Your task to perform on an android device: refresh tabs in the chrome app Image 0: 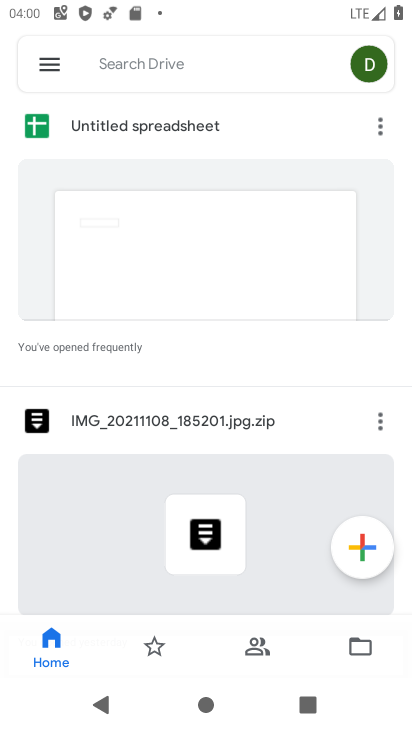
Step 0: press home button
Your task to perform on an android device: refresh tabs in the chrome app Image 1: 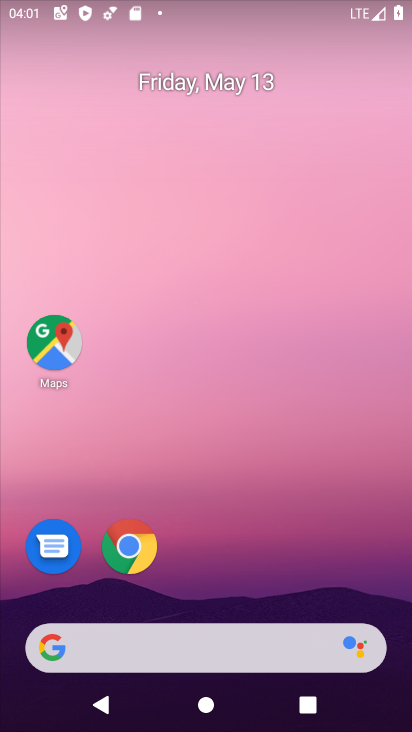
Step 1: click (137, 546)
Your task to perform on an android device: refresh tabs in the chrome app Image 2: 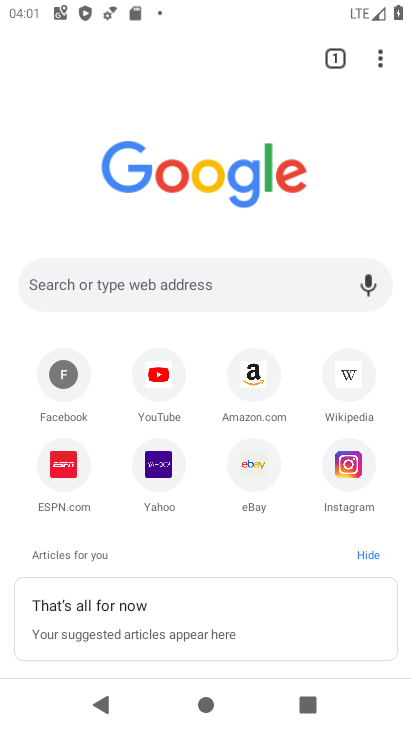
Step 2: click (137, 546)
Your task to perform on an android device: refresh tabs in the chrome app Image 3: 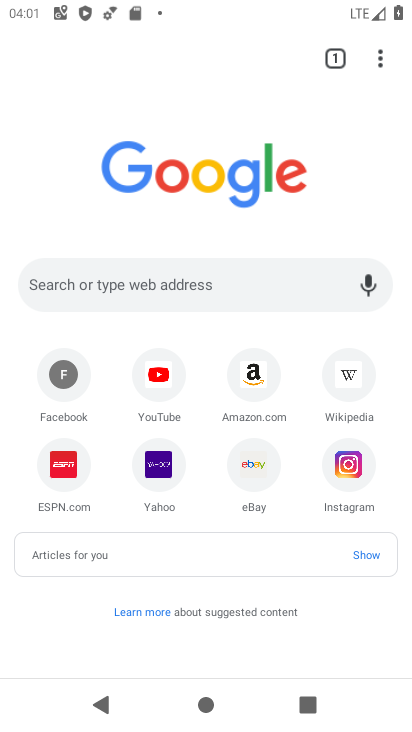
Step 3: click (390, 55)
Your task to perform on an android device: refresh tabs in the chrome app Image 4: 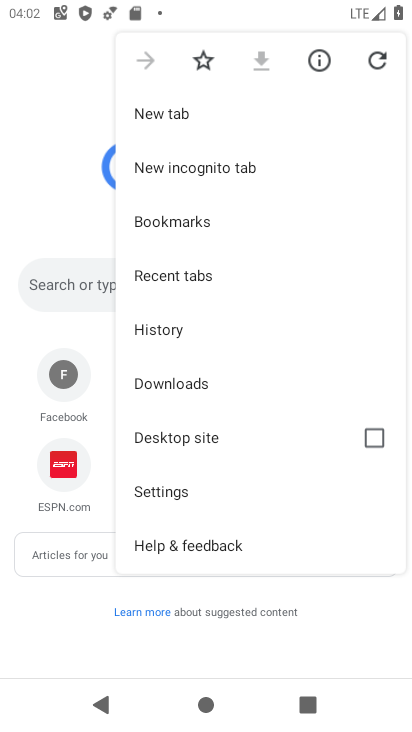
Step 4: click (395, 69)
Your task to perform on an android device: refresh tabs in the chrome app Image 5: 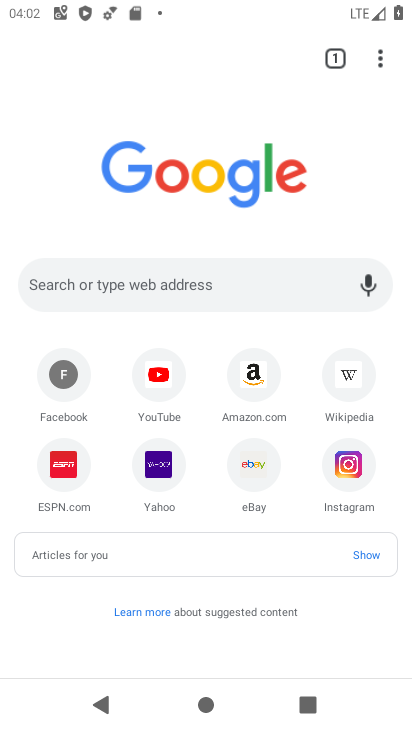
Step 5: task complete